Your task to perform on an android device: change keyboard looks Image 0: 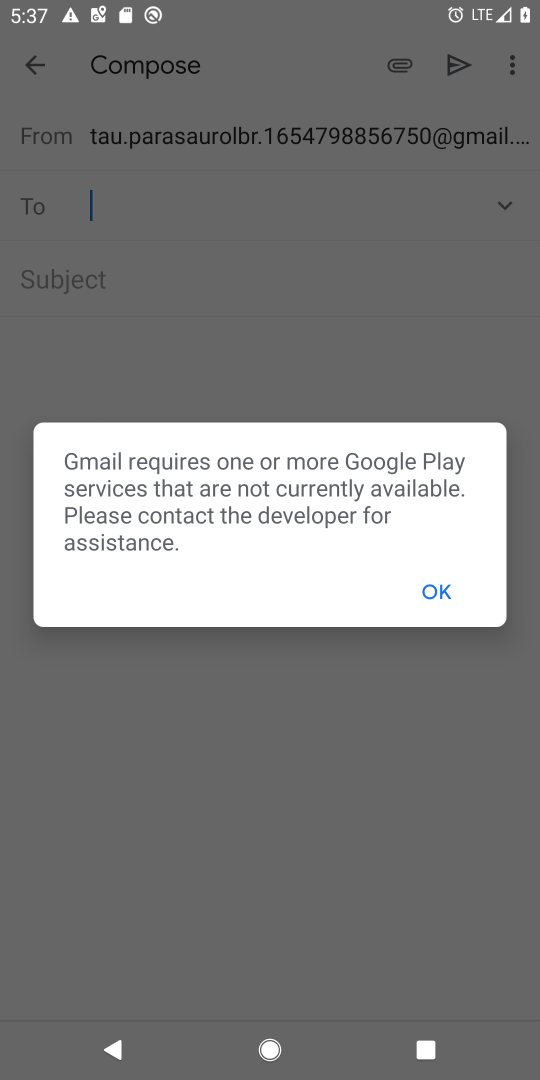
Step 0: click (408, 582)
Your task to perform on an android device: change keyboard looks Image 1: 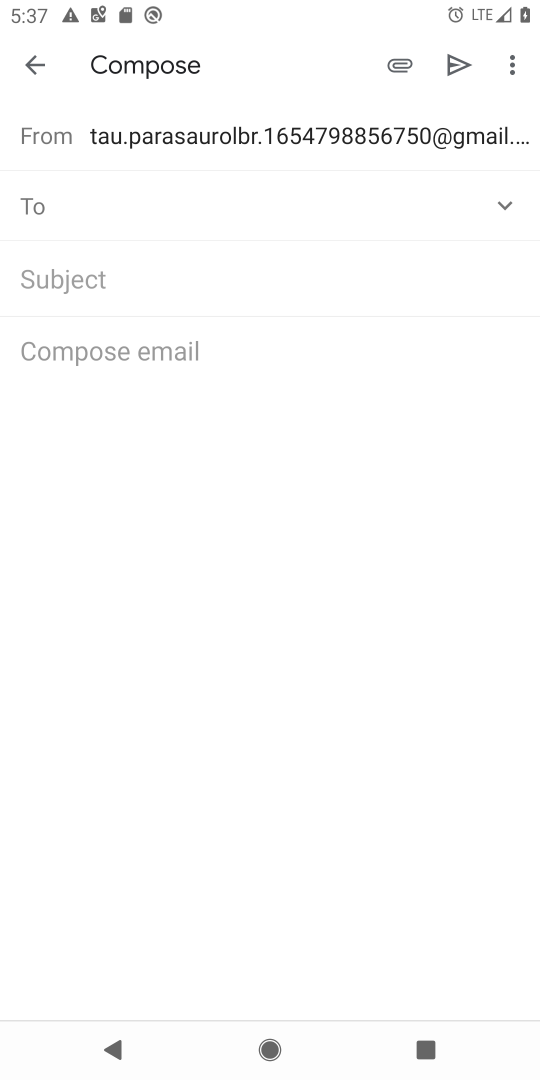
Step 1: press back button
Your task to perform on an android device: change keyboard looks Image 2: 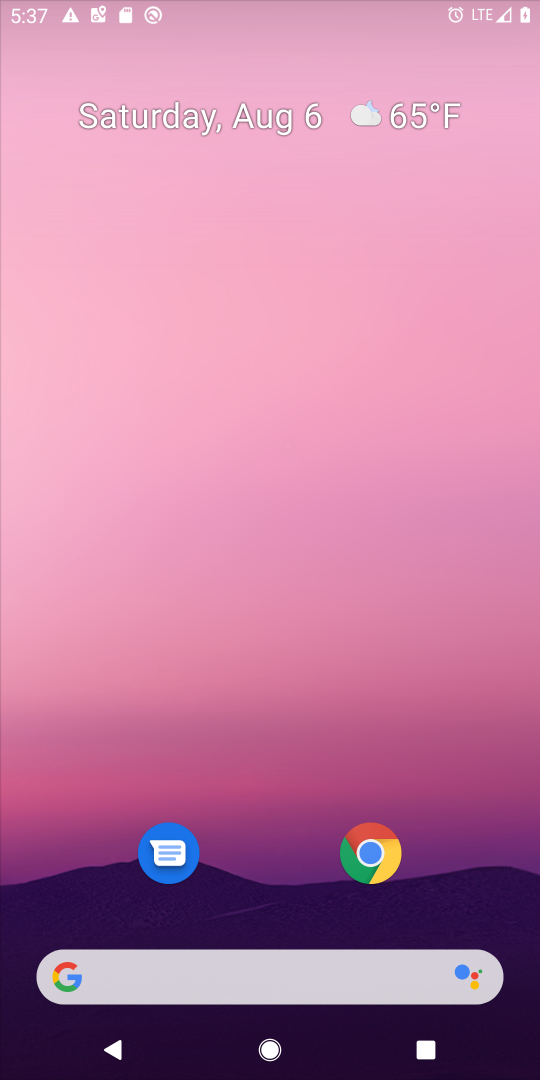
Step 2: drag from (275, 875) to (403, 0)
Your task to perform on an android device: change keyboard looks Image 3: 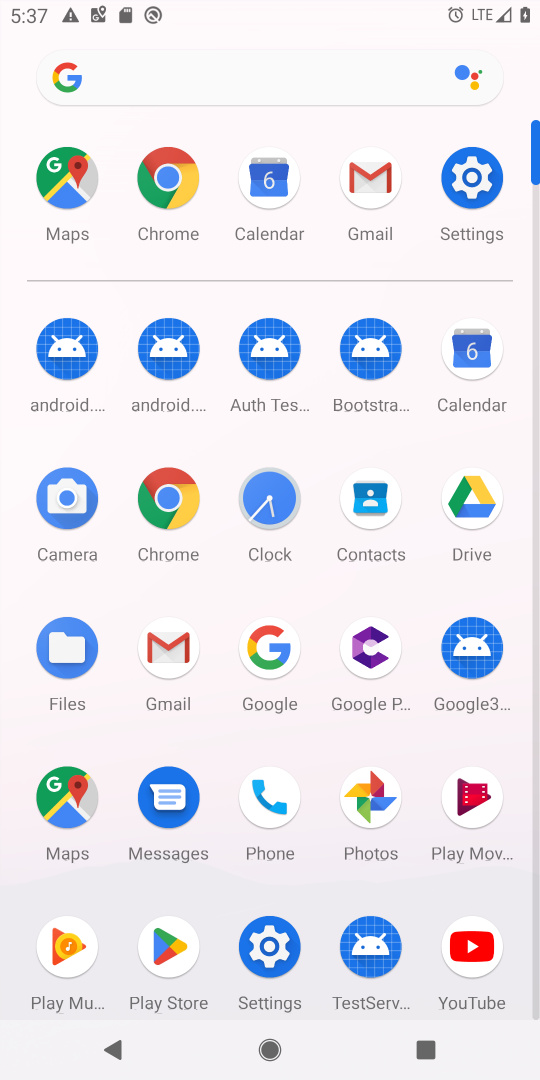
Step 3: click (461, 188)
Your task to perform on an android device: change keyboard looks Image 4: 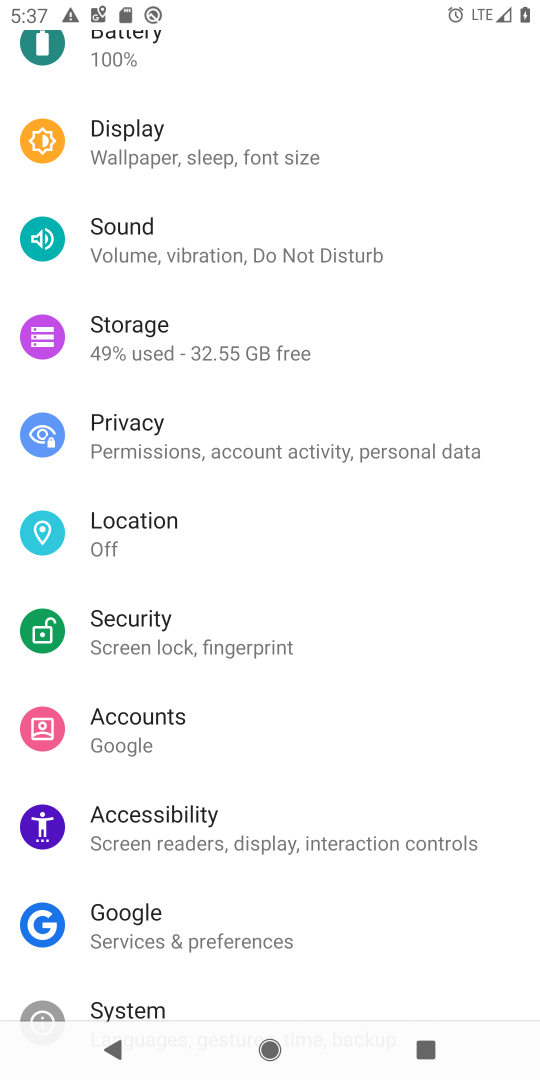
Step 4: drag from (272, 980) to (415, 11)
Your task to perform on an android device: change keyboard looks Image 5: 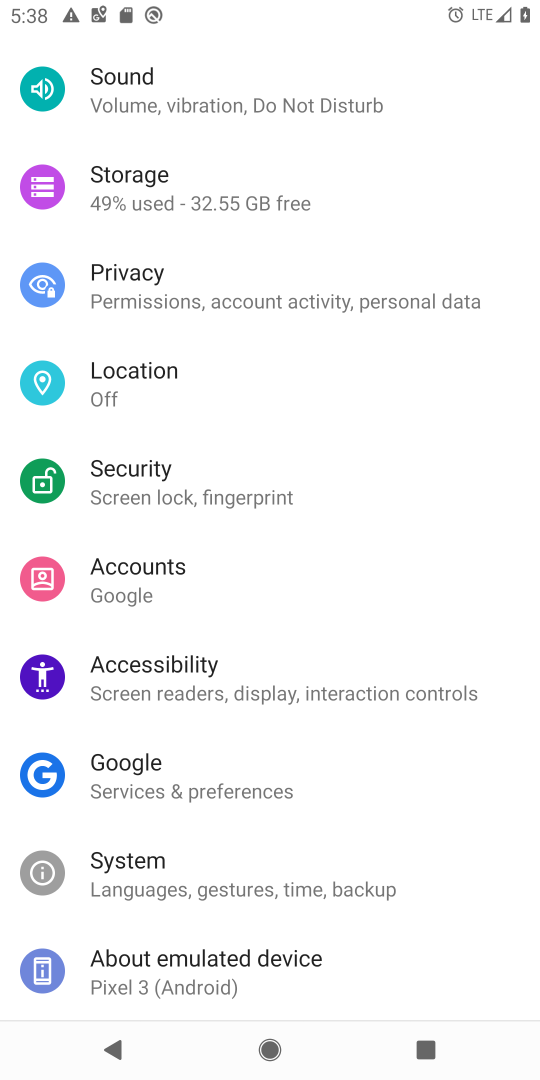
Step 5: click (170, 862)
Your task to perform on an android device: change keyboard looks Image 6: 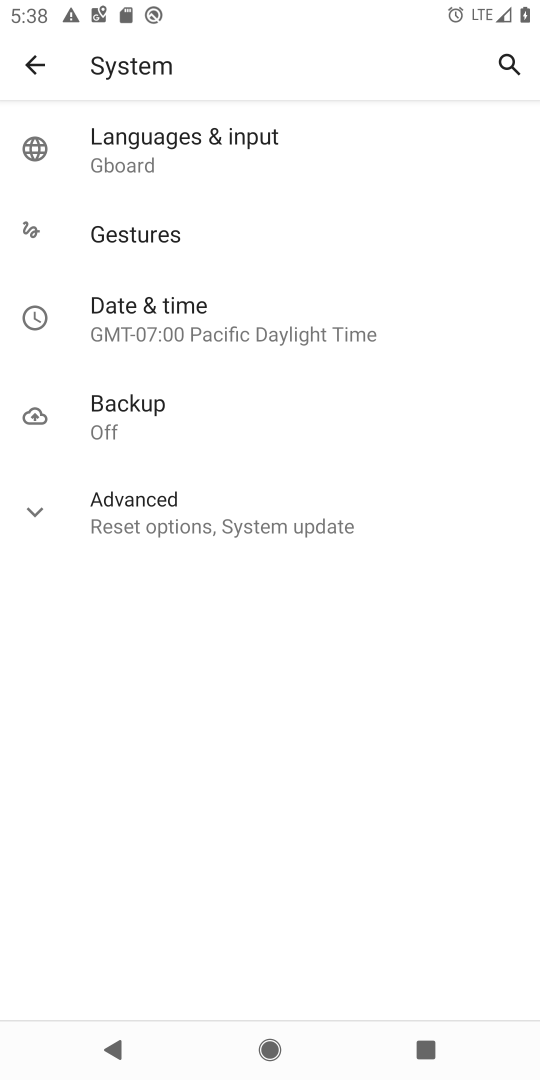
Step 6: click (176, 159)
Your task to perform on an android device: change keyboard looks Image 7: 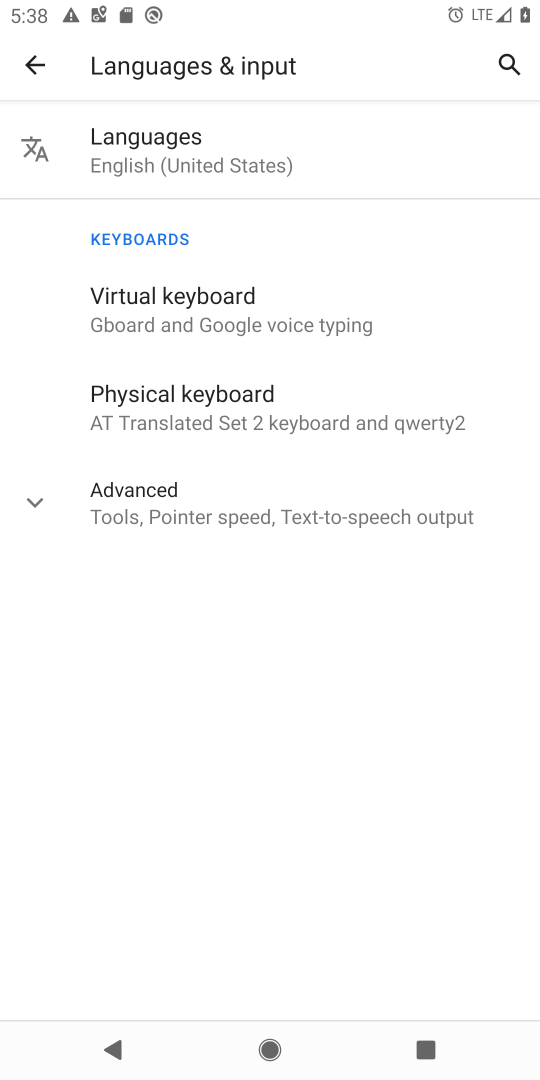
Step 7: click (146, 288)
Your task to perform on an android device: change keyboard looks Image 8: 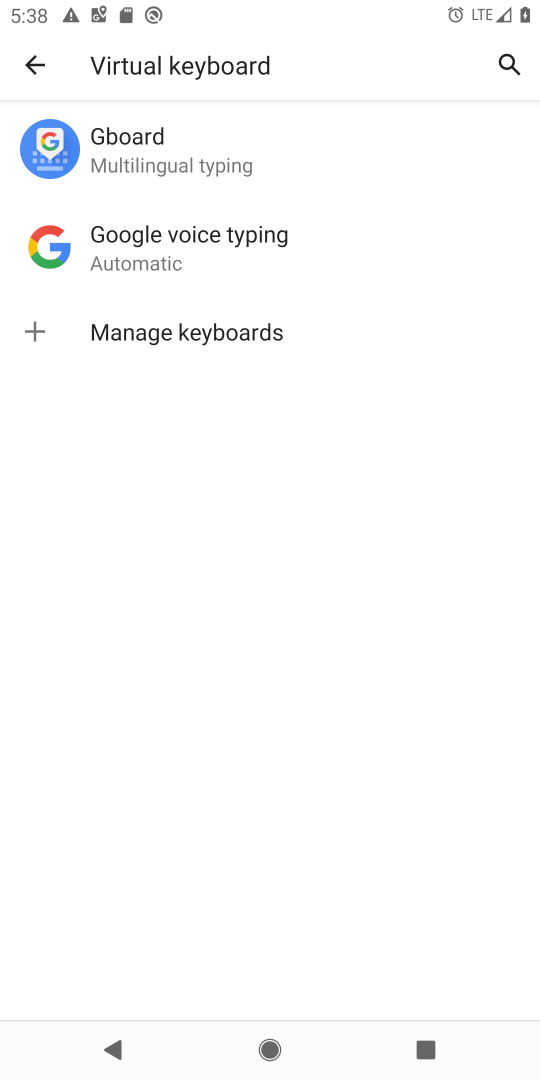
Step 8: click (154, 146)
Your task to perform on an android device: change keyboard looks Image 9: 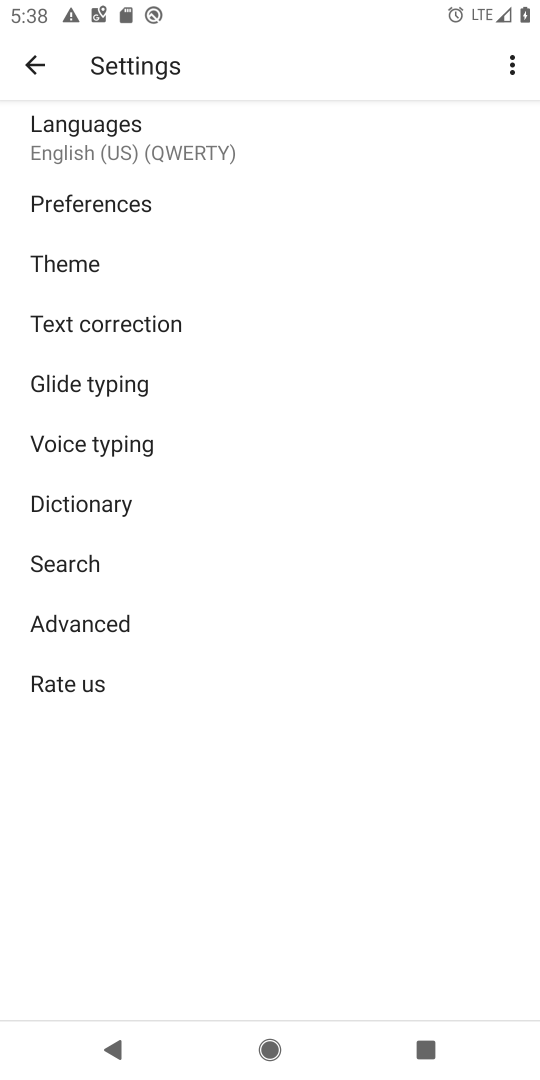
Step 9: click (80, 271)
Your task to perform on an android device: change keyboard looks Image 10: 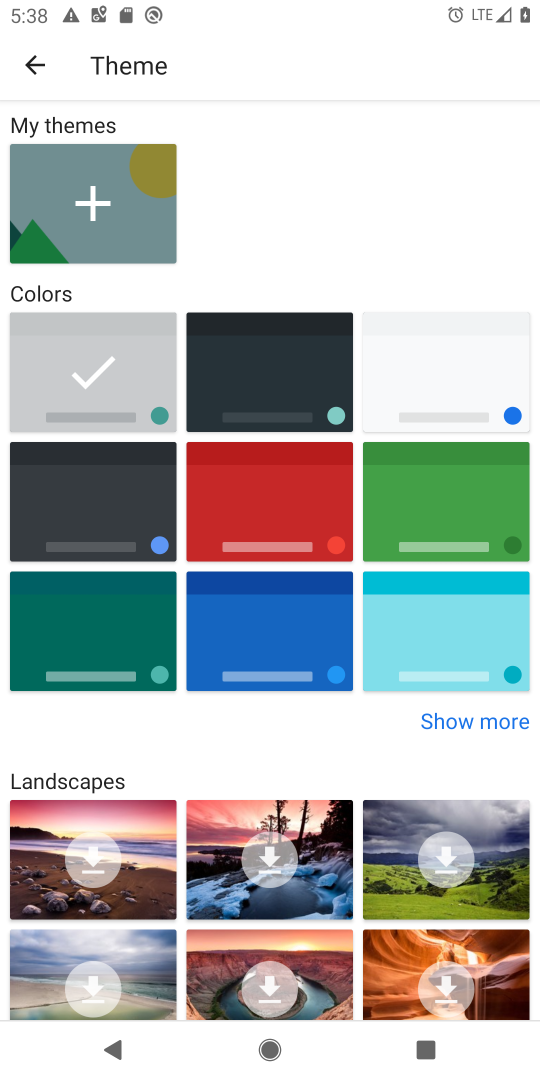
Step 10: click (283, 528)
Your task to perform on an android device: change keyboard looks Image 11: 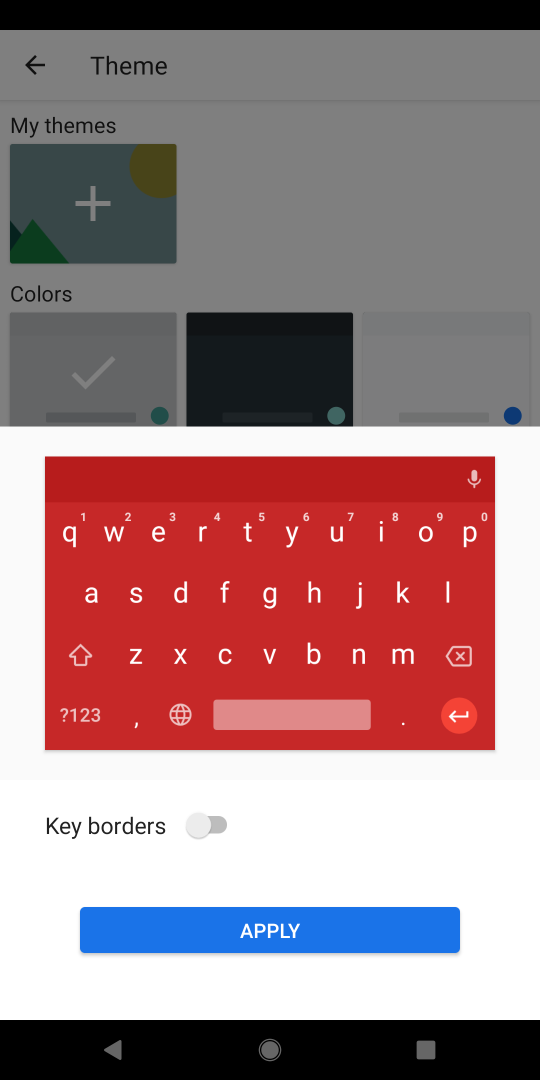
Step 11: click (208, 919)
Your task to perform on an android device: change keyboard looks Image 12: 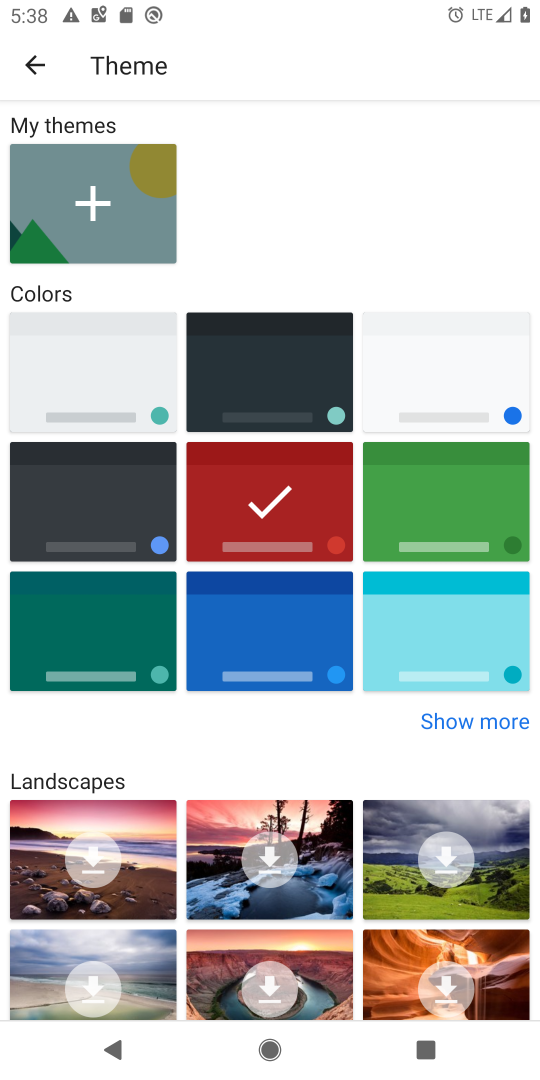
Step 12: task complete